Your task to perform on an android device: change keyboard looks Image 0: 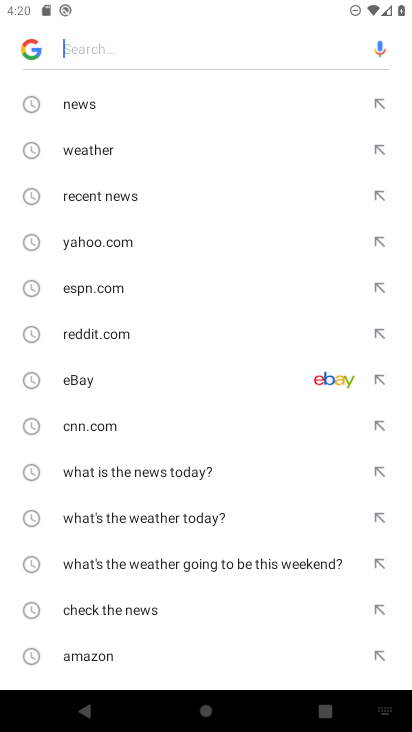
Step 0: press home button
Your task to perform on an android device: change keyboard looks Image 1: 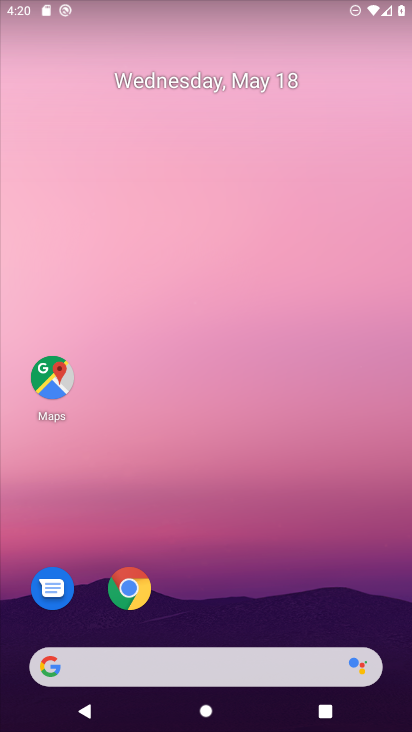
Step 1: drag from (240, 602) to (276, 167)
Your task to perform on an android device: change keyboard looks Image 2: 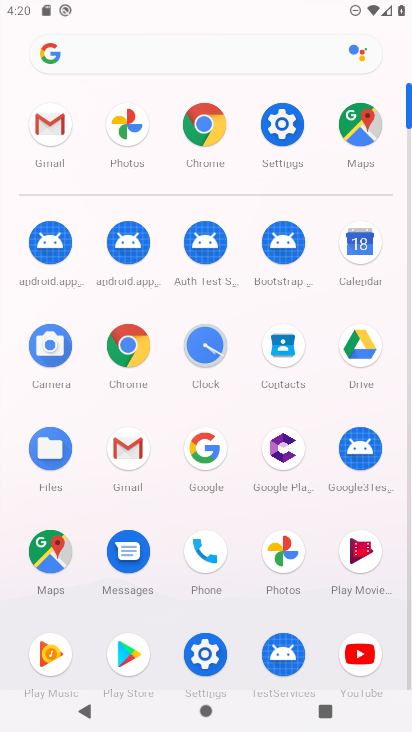
Step 2: click (277, 162)
Your task to perform on an android device: change keyboard looks Image 3: 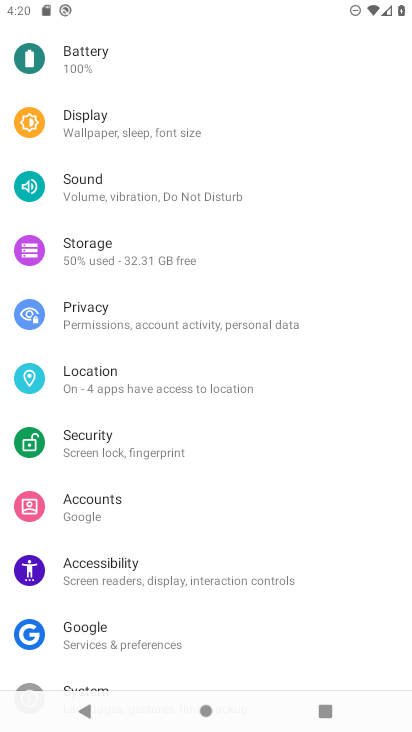
Step 3: drag from (181, 623) to (280, 221)
Your task to perform on an android device: change keyboard looks Image 4: 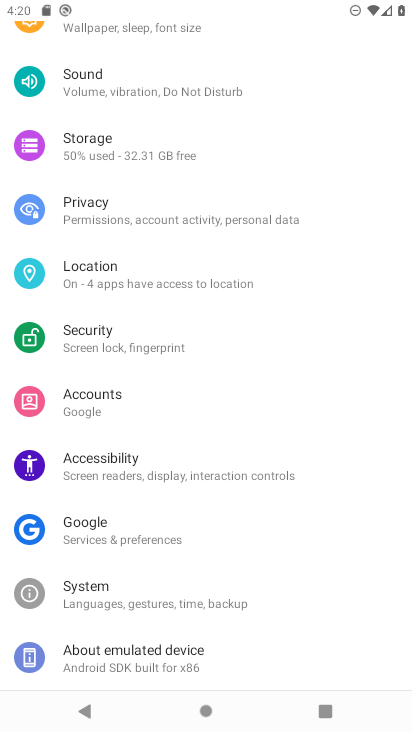
Step 4: click (194, 593)
Your task to perform on an android device: change keyboard looks Image 5: 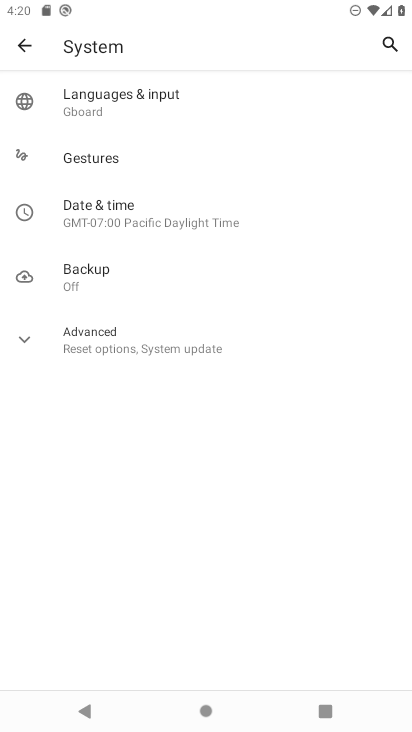
Step 5: click (141, 118)
Your task to perform on an android device: change keyboard looks Image 6: 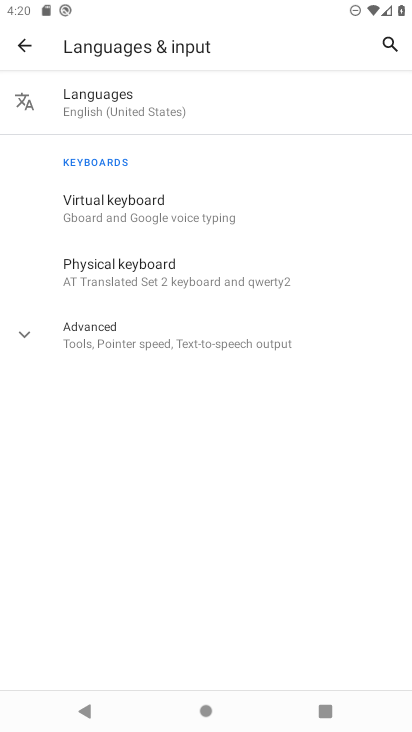
Step 6: click (128, 212)
Your task to perform on an android device: change keyboard looks Image 7: 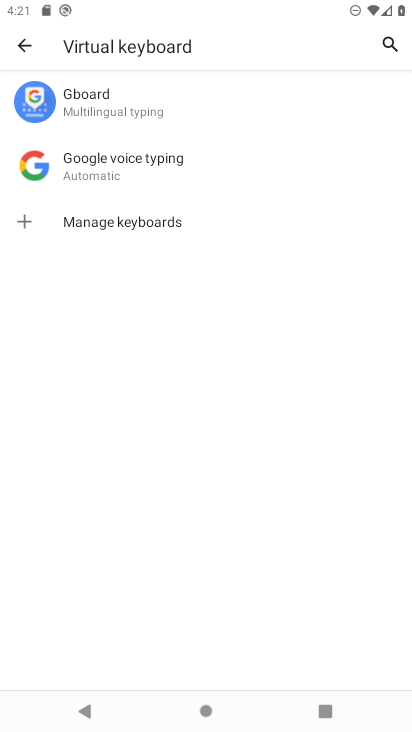
Step 7: click (134, 118)
Your task to perform on an android device: change keyboard looks Image 8: 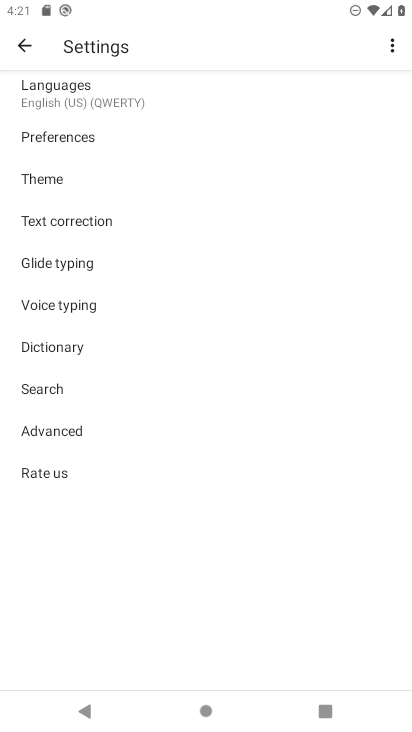
Step 8: click (131, 268)
Your task to perform on an android device: change keyboard looks Image 9: 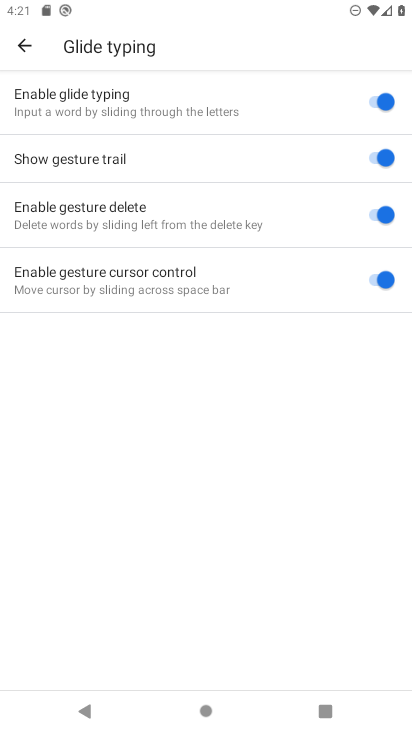
Step 9: click (25, 55)
Your task to perform on an android device: change keyboard looks Image 10: 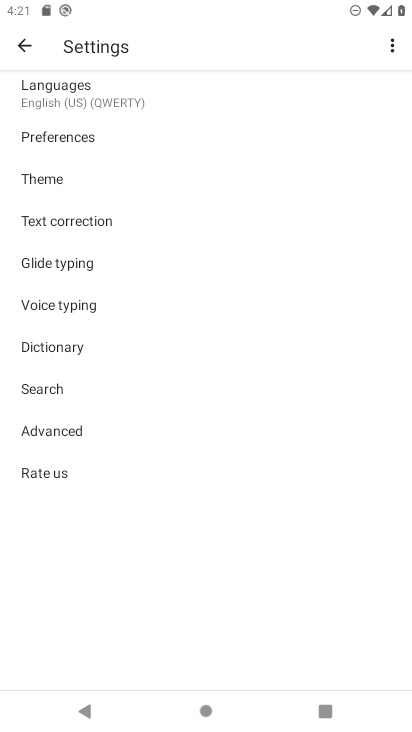
Step 10: click (57, 169)
Your task to perform on an android device: change keyboard looks Image 11: 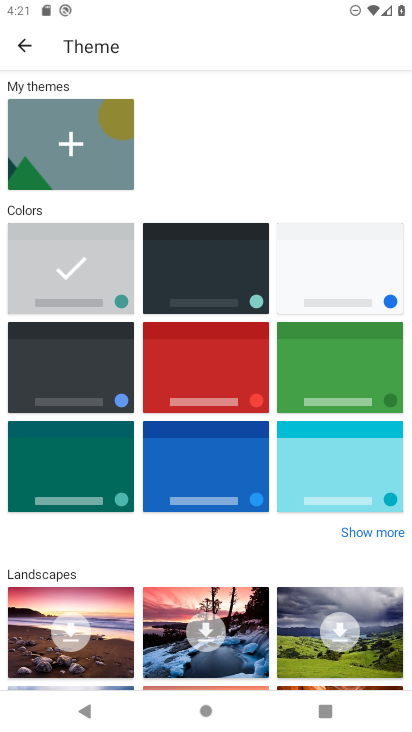
Step 11: click (262, 252)
Your task to perform on an android device: change keyboard looks Image 12: 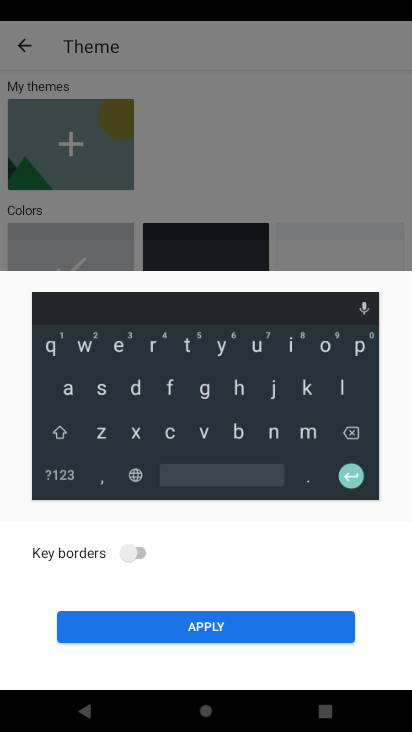
Step 12: task complete